Your task to perform on an android device: choose inbox layout in the gmail app Image 0: 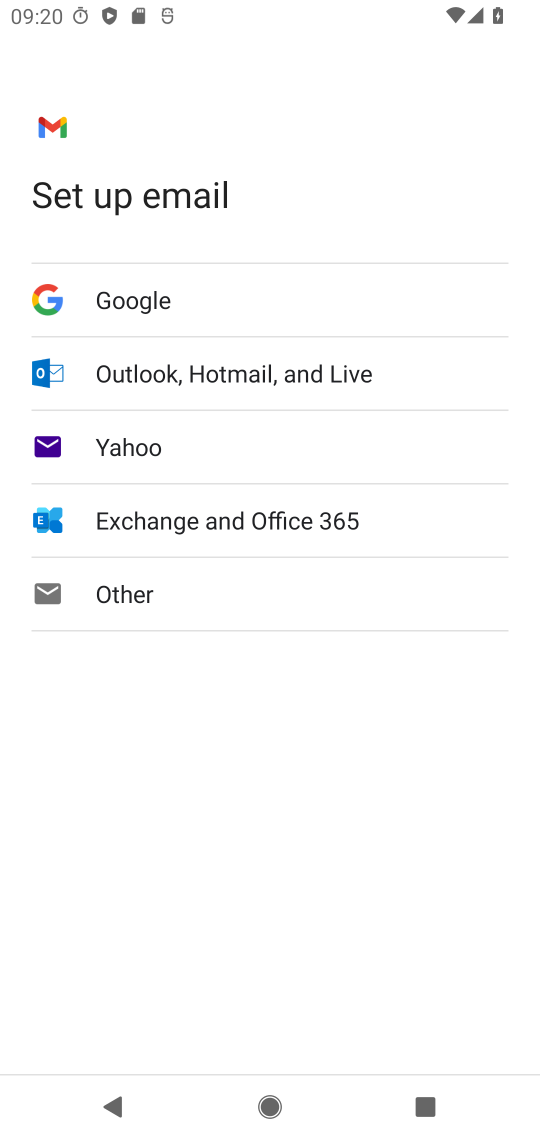
Step 0: press home button
Your task to perform on an android device: choose inbox layout in the gmail app Image 1: 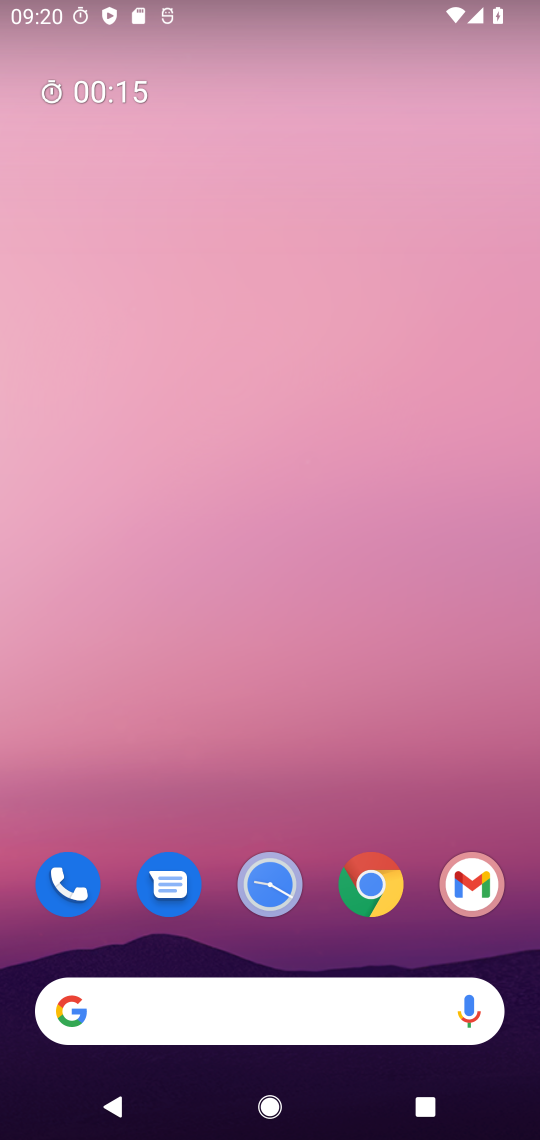
Step 1: drag from (267, 764) to (271, 283)
Your task to perform on an android device: choose inbox layout in the gmail app Image 2: 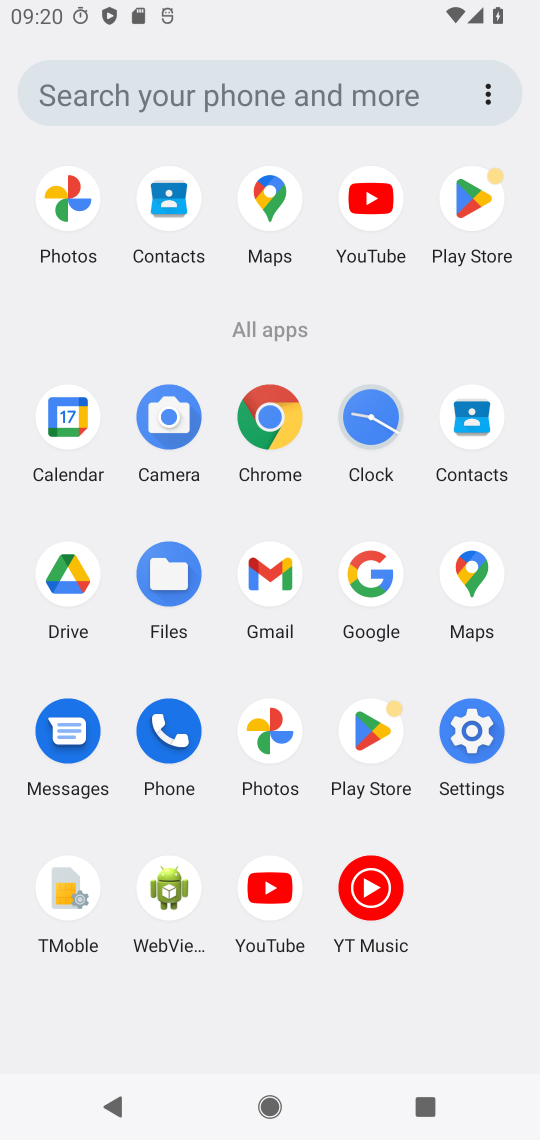
Step 2: click (265, 600)
Your task to perform on an android device: choose inbox layout in the gmail app Image 3: 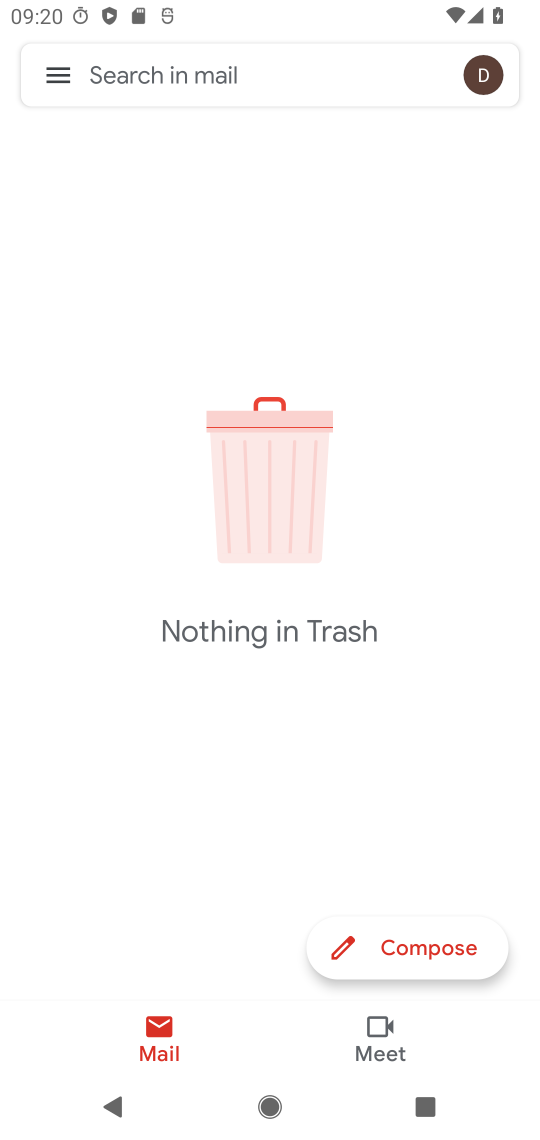
Step 3: click (52, 83)
Your task to perform on an android device: choose inbox layout in the gmail app Image 4: 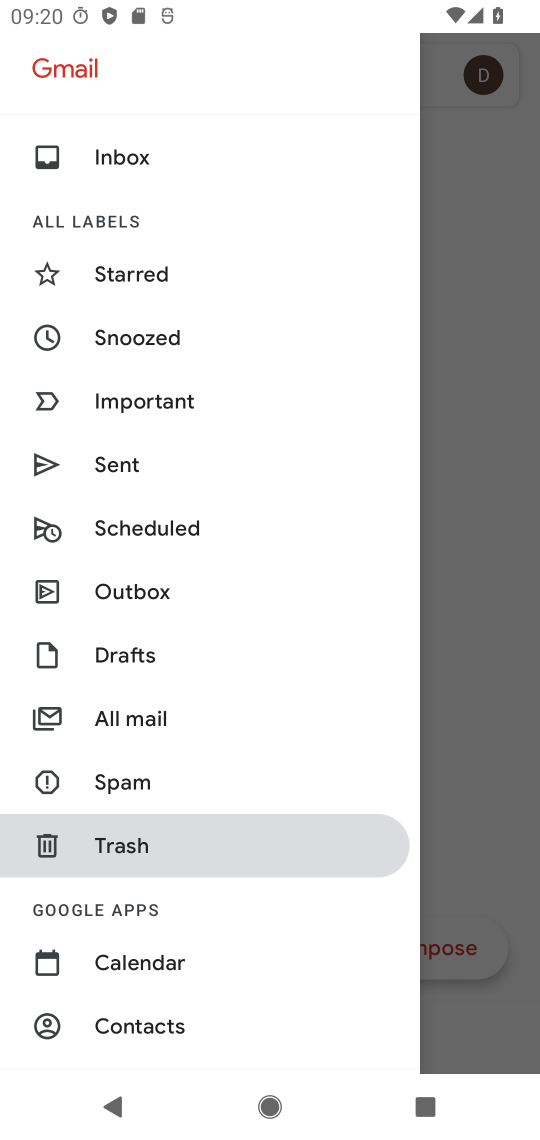
Step 4: drag from (211, 995) to (212, 221)
Your task to perform on an android device: choose inbox layout in the gmail app Image 5: 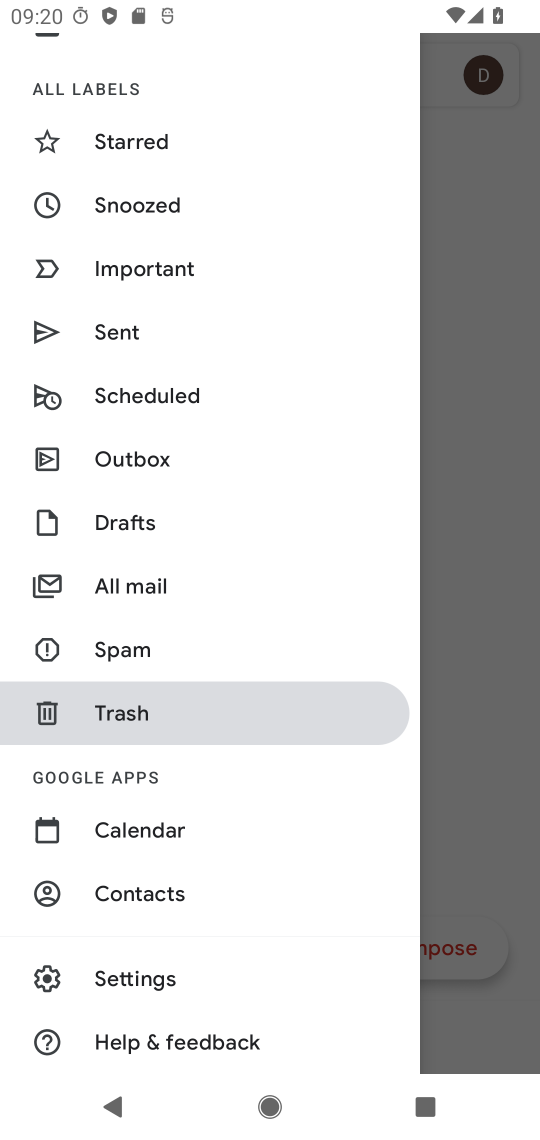
Step 5: click (126, 977)
Your task to perform on an android device: choose inbox layout in the gmail app Image 6: 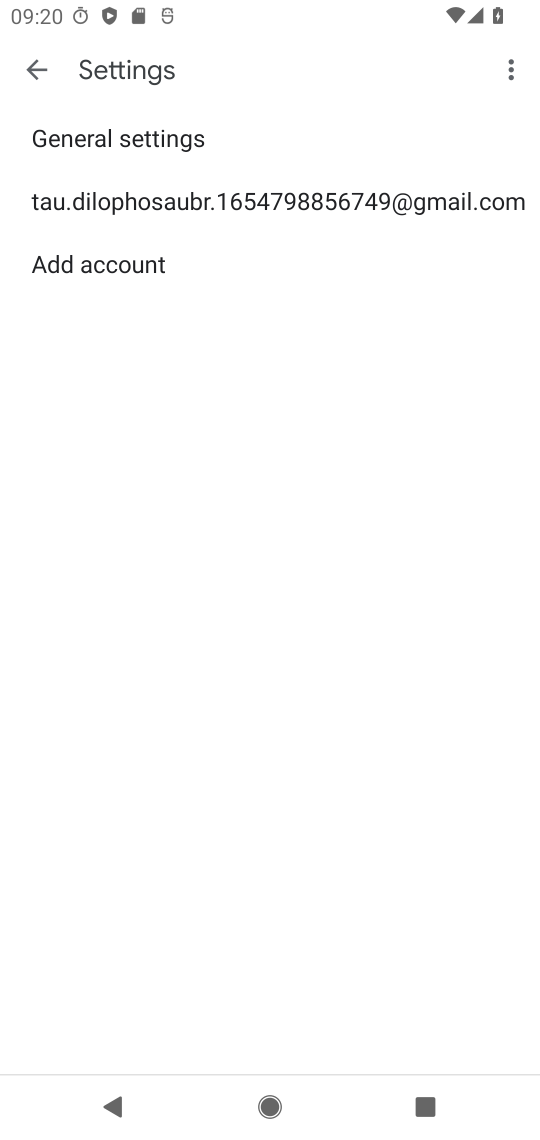
Step 6: click (235, 214)
Your task to perform on an android device: choose inbox layout in the gmail app Image 7: 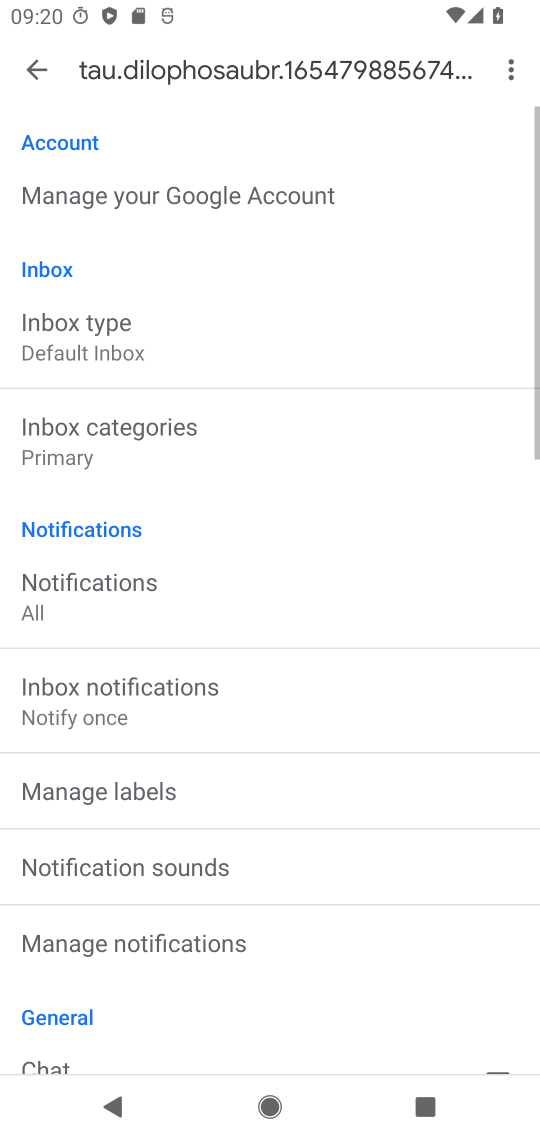
Step 7: click (195, 328)
Your task to perform on an android device: choose inbox layout in the gmail app Image 8: 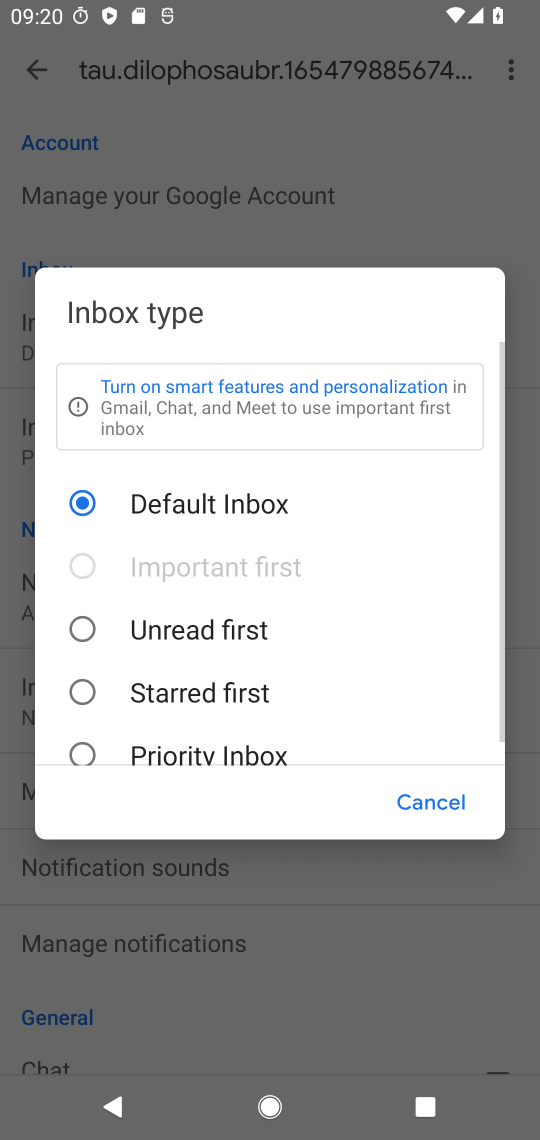
Step 8: drag from (216, 752) to (225, 465)
Your task to perform on an android device: choose inbox layout in the gmail app Image 9: 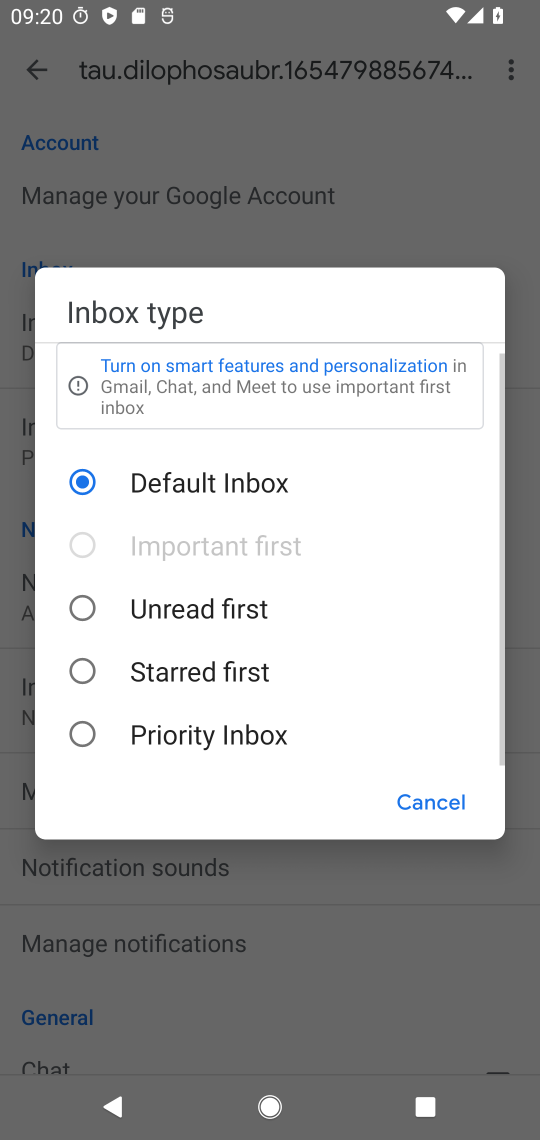
Step 9: click (223, 726)
Your task to perform on an android device: choose inbox layout in the gmail app Image 10: 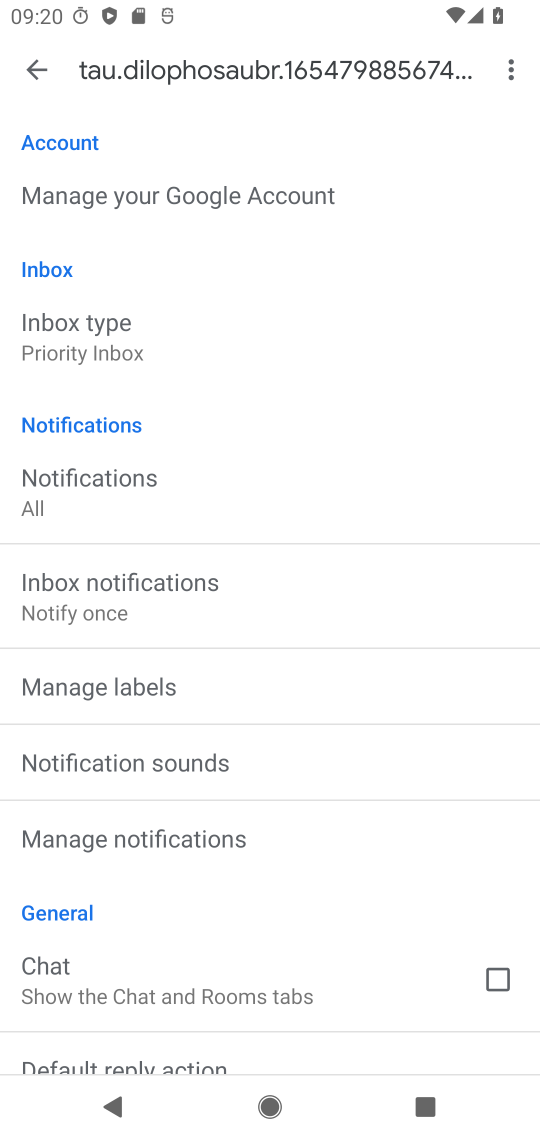
Step 10: task complete